Your task to perform on an android device: turn off improve location accuracy Image 0: 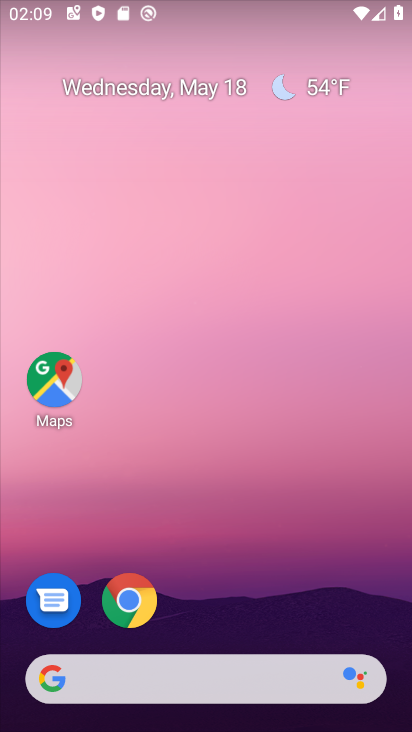
Step 0: drag from (229, 656) to (260, 157)
Your task to perform on an android device: turn off improve location accuracy Image 1: 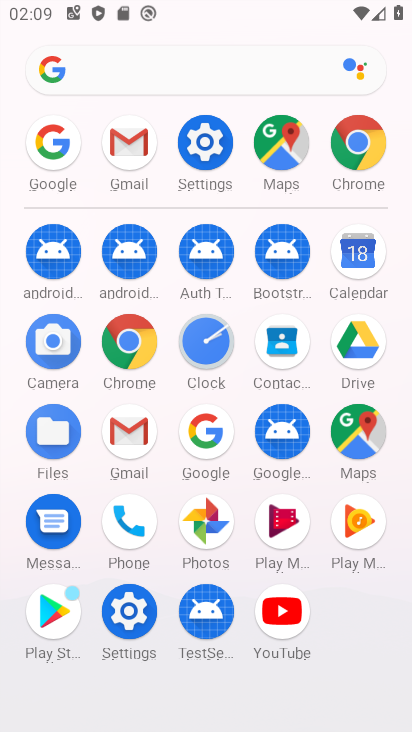
Step 1: click (197, 159)
Your task to perform on an android device: turn off improve location accuracy Image 2: 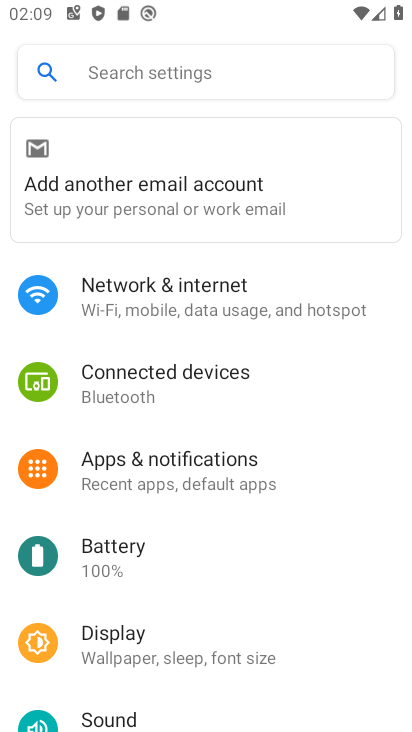
Step 2: drag from (187, 659) to (247, 248)
Your task to perform on an android device: turn off improve location accuracy Image 3: 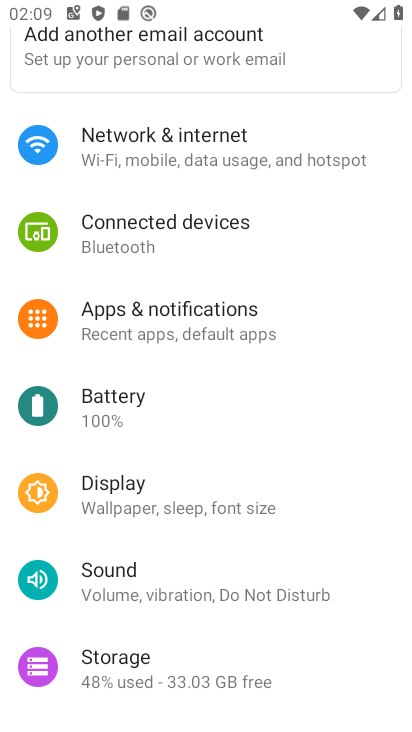
Step 3: drag from (190, 696) to (243, 369)
Your task to perform on an android device: turn off improve location accuracy Image 4: 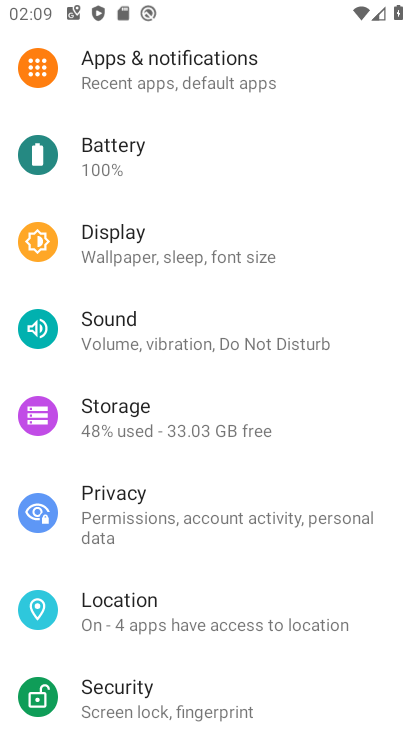
Step 4: drag from (216, 711) to (261, 394)
Your task to perform on an android device: turn off improve location accuracy Image 5: 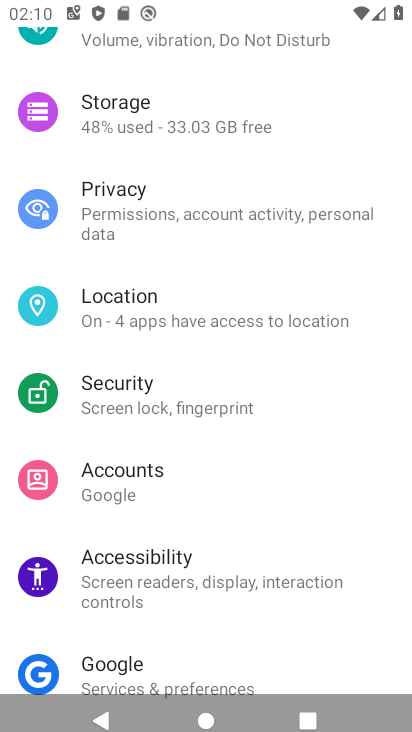
Step 5: click (122, 304)
Your task to perform on an android device: turn off improve location accuracy Image 6: 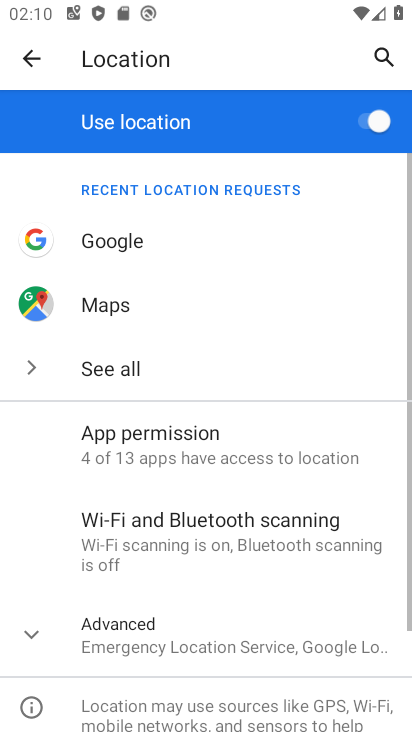
Step 6: drag from (156, 703) to (220, 279)
Your task to perform on an android device: turn off improve location accuracy Image 7: 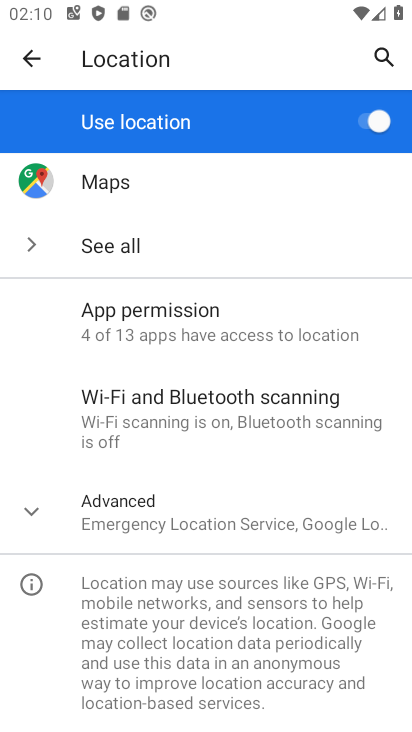
Step 7: click (128, 506)
Your task to perform on an android device: turn off improve location accuracy Image 8: 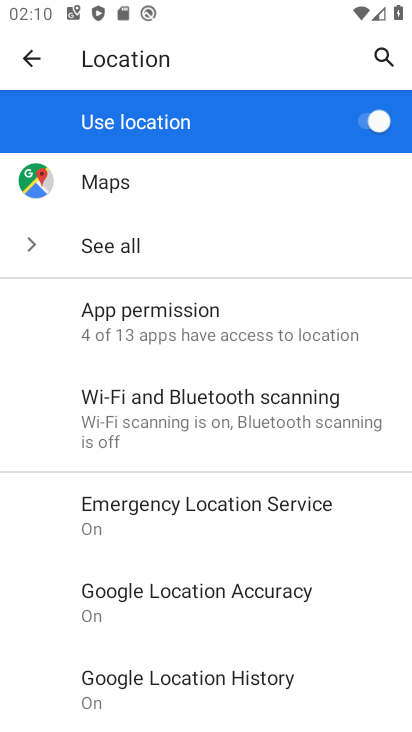
Step 8: drag from (189, 689) to (224, 443)
Your task to perform on an android device: turn off improve location accuracy Image 9: 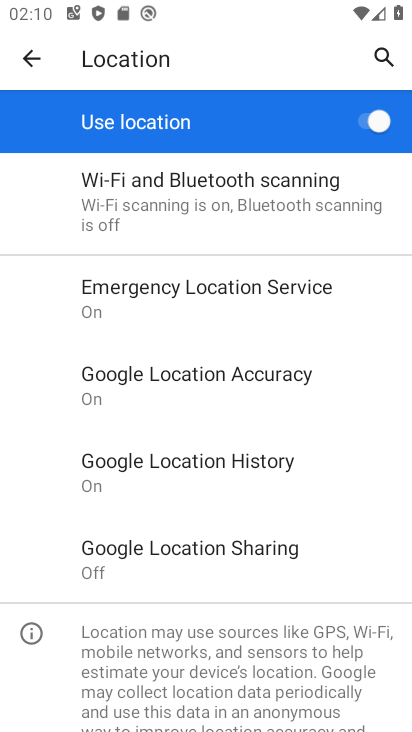
Step 9: click (181, 384)
Your task to perform on an android device: turn off improve location accuracy Image 10: 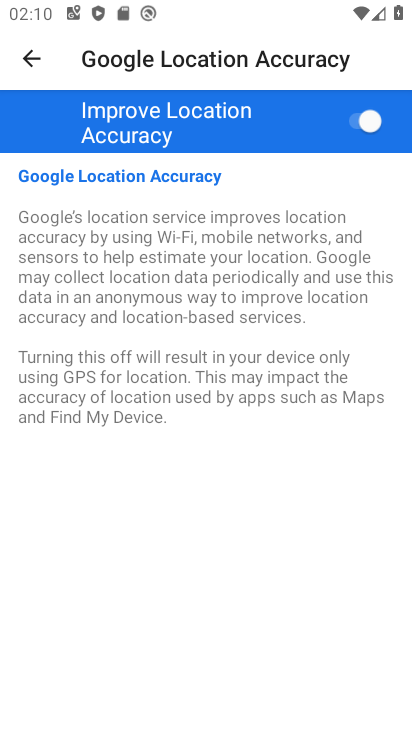
Step 10: click (360, 115)
Your task to perform on an android device: turn off improve location accuracy Image 11: 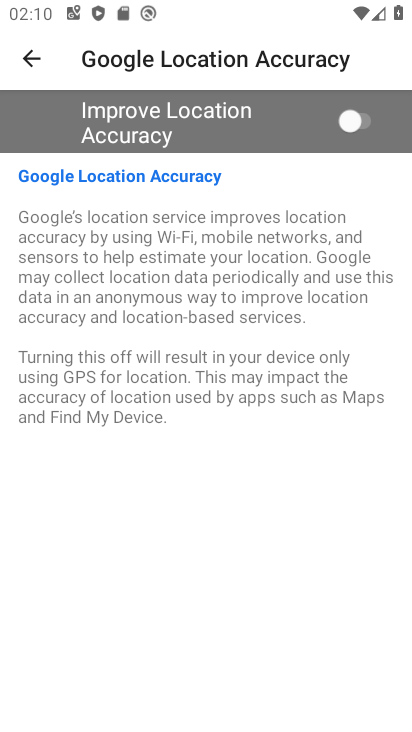
Step 11: task complete